Your task to perform on an android device: Go to battery settings Image 0: 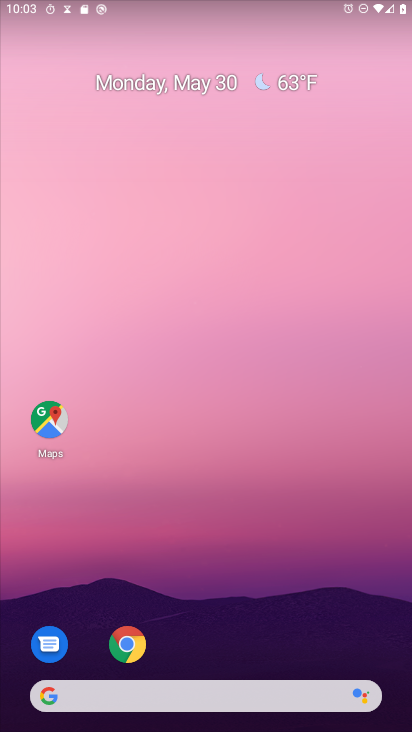
Step 0: drag from (198, 624) to (205, 47)
Your task to perform on an android device: Go to battery settings Image 1: 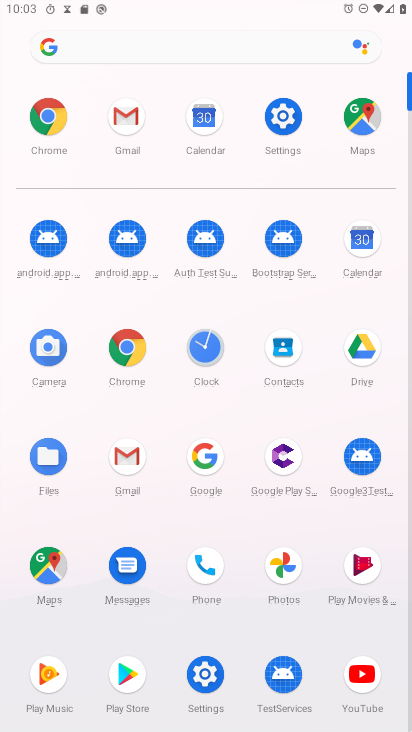
Step 1: click (282, 120)
Your task to perform on an android device: Go to battery settings Image 2: 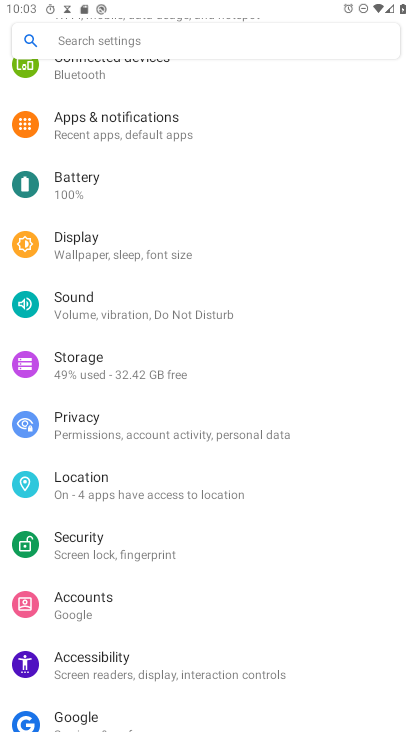
Step 2: click (105, 189)
Your task to perform on an android device: Go to battery settings Image 3: 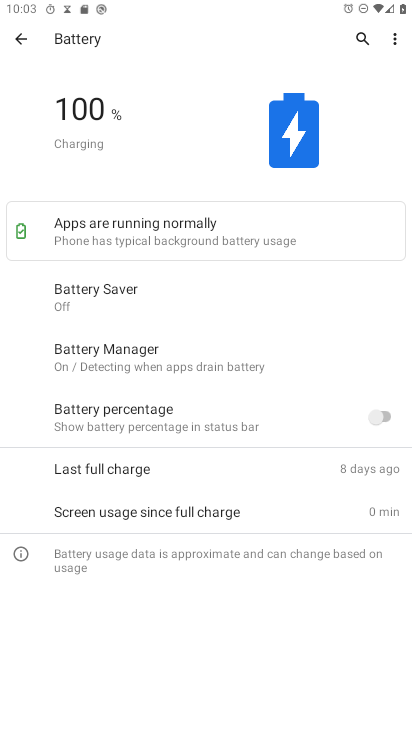
Step 3: task complete